Your task to perform on an android device: Open wifi settings Image 0: 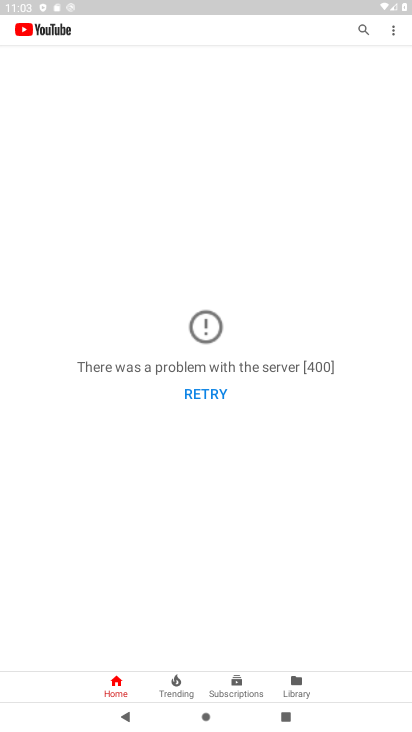
Step 0: press home button
Your task to perform on an android device: Open wifi settings Image 1: 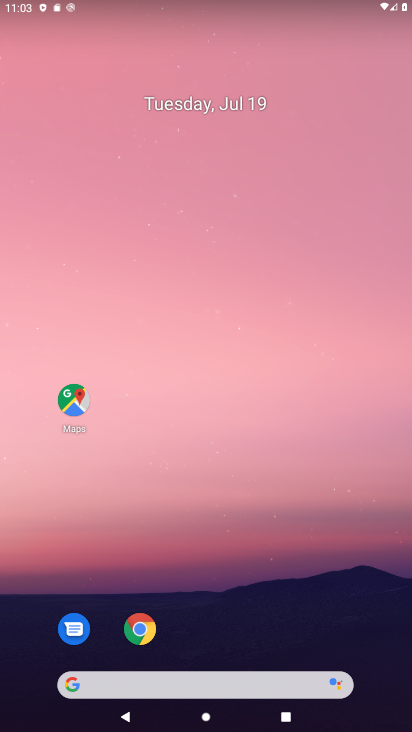
Step 1: drag from (330, 592) to (347, 118)
Your task to perform on an android device: Open wifi settings Image 2: 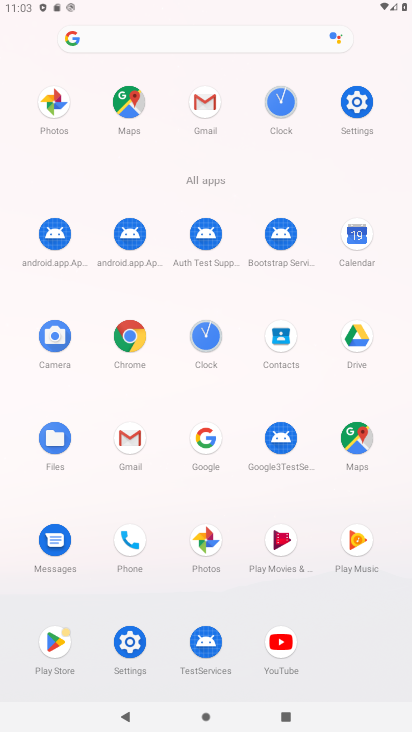
Step 2: click (356, 109)
Your task to perform on an android device: Open wifi settings Image 3: 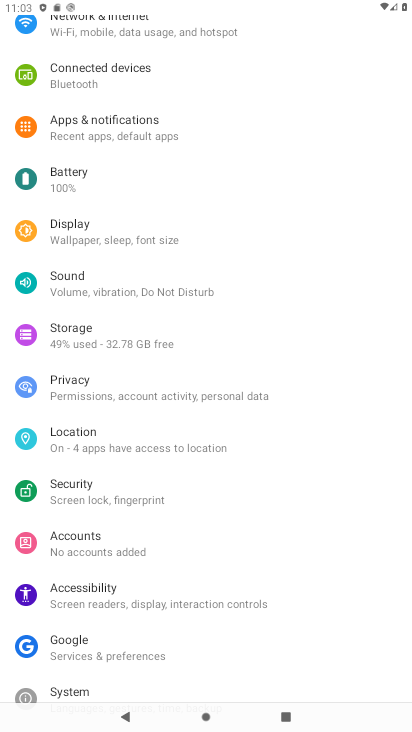
Step 3: drag from (341, 202) to (343, 317)
Your task to perform on an android device: Open wifi settings Image 4: 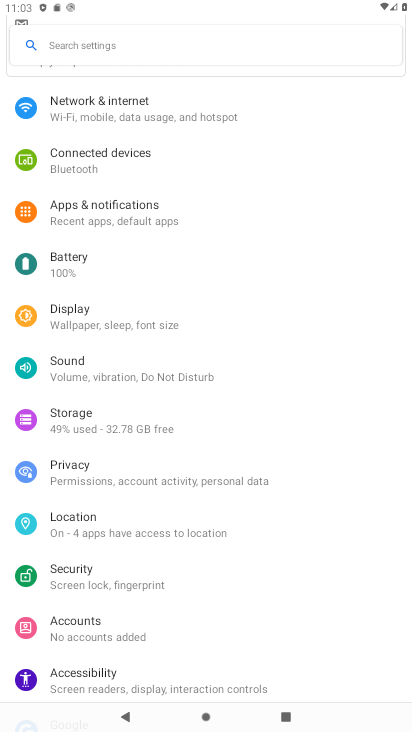
Step 4: drag from (328, 157) to (330, 300)
Your task to perform on an android device: Open wifi settings Image 5: 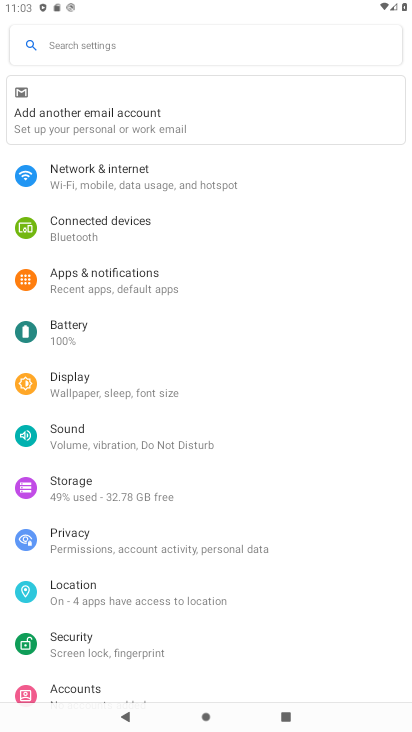
Step 5: click (216, 186)
Your task to perform on an android device: Open wifi settings Image 6: 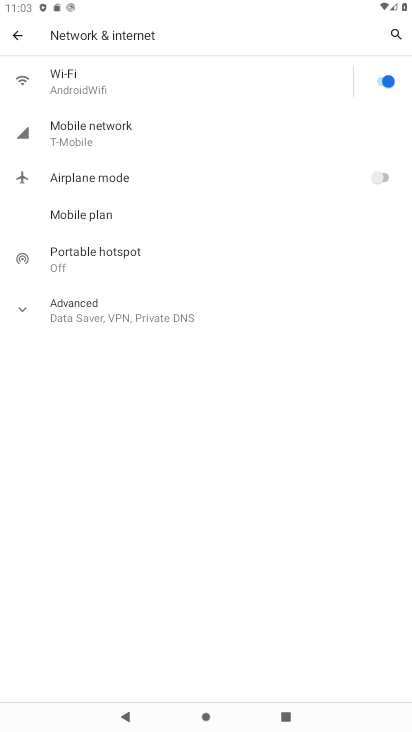
Step 6: click (100, 87)
Your task to perform on an android device: Open wifi settings Image 7: 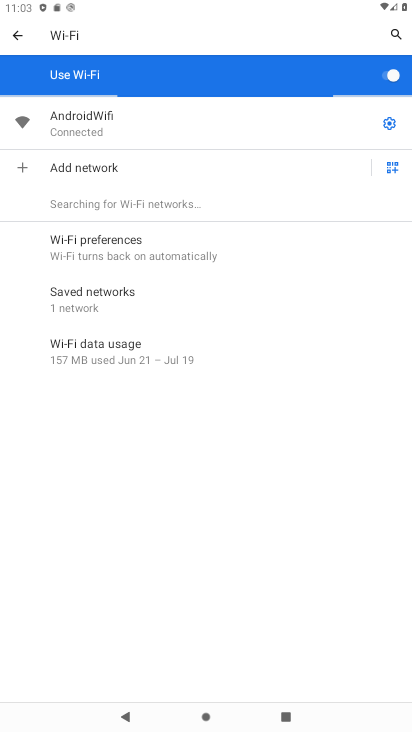
Step 7: task complete